Your task to perform on an android device: open a new tab in the chrome app Image 0: 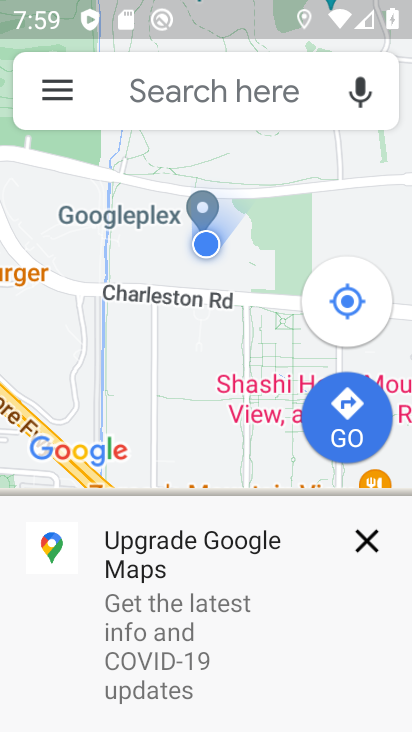
Step 0: press home button
Your task to perform on an android device: open a new tab in the chrome app Image 1: 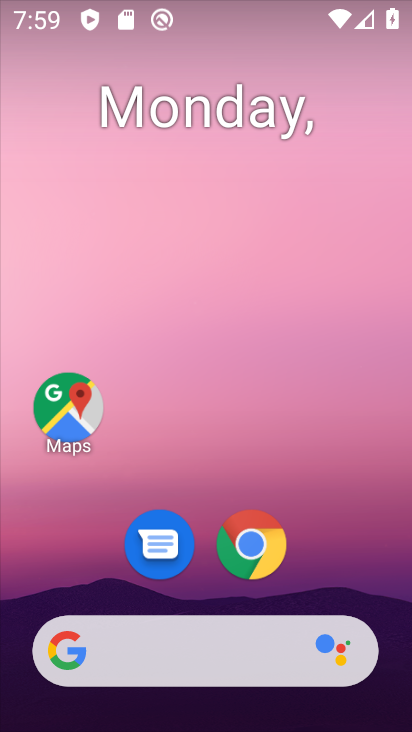
Step 1: click (257, 536)
Your task to perform on an android device: open a new tab in the chrome app Image 2: 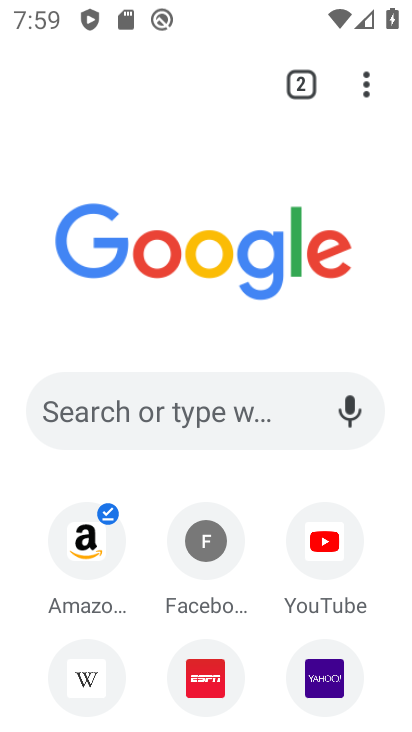
Step 2: click (310, 102)
Your task to perform on an android device: open a new tab in the chrome app Image 3: 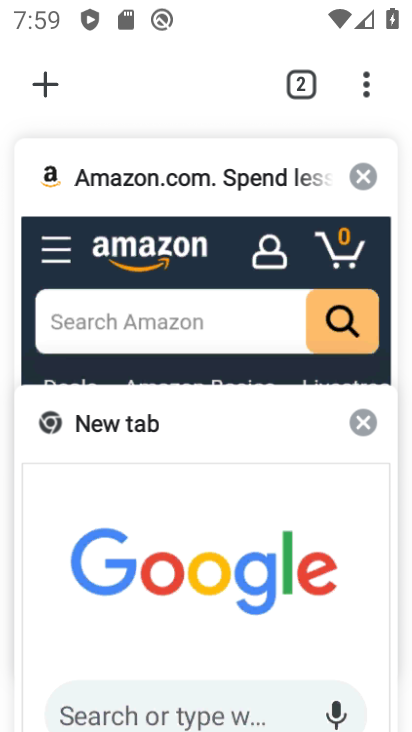
Step 3: click (48, 83)
Your task to perform on an android device: open a new tab in the chrome app Image 4: 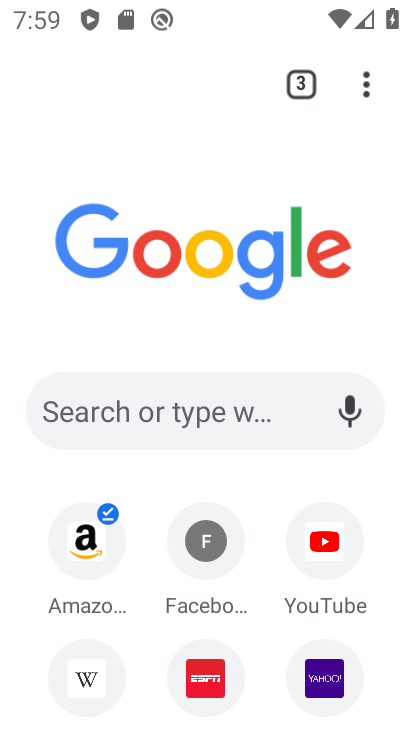
Step 4: task complete